Your task to perform on an android device: Open maps Image 0: 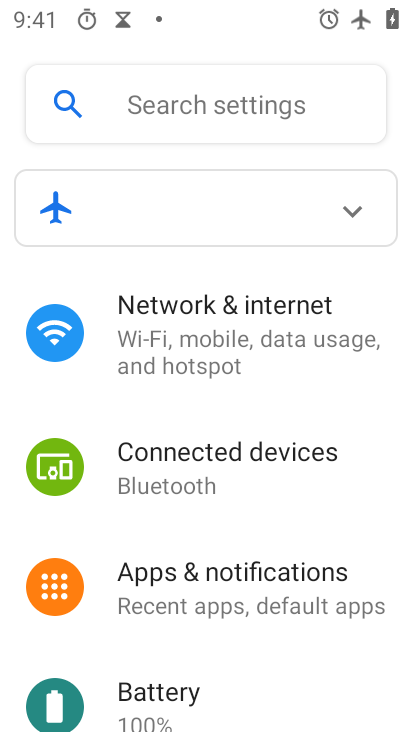
Step 0: press home button
Your task to perform on an android device: Open maps Image 1: 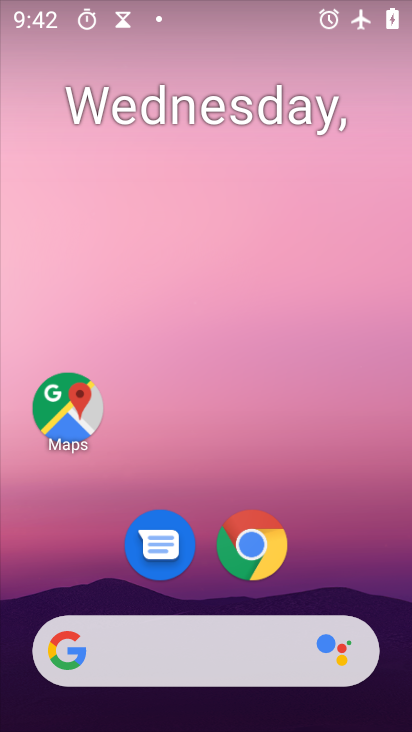
Step 1: click (70, 415)
Your task to perform on an android device: Open maps Image 2: 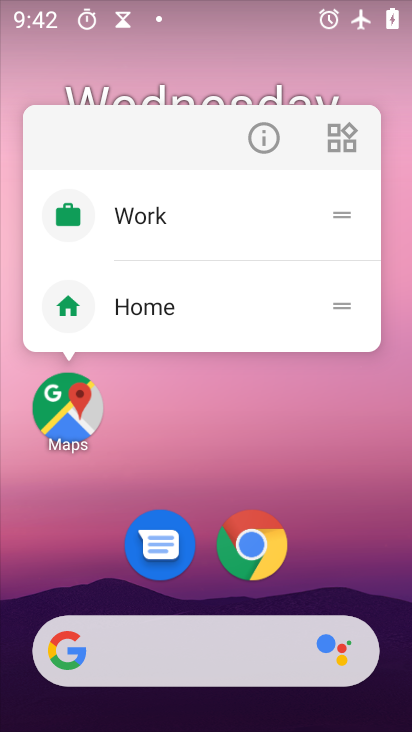
Step 2: click (74, 421)
Your task to perform on an android device: Open maps Image 3: 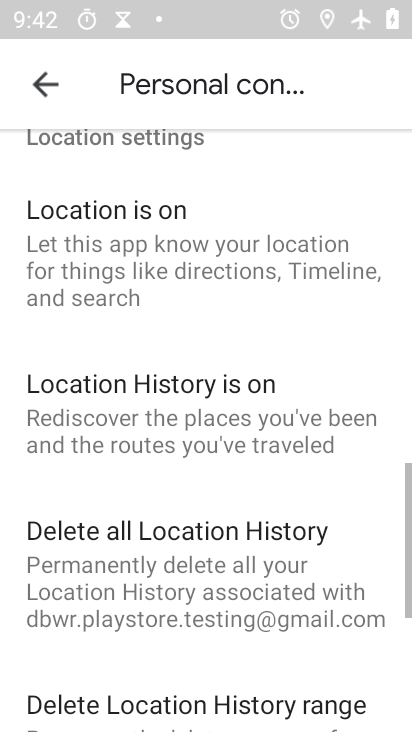
Step 3: click (26, 89)
Your task to perform on an android device: Open maps Image 4: 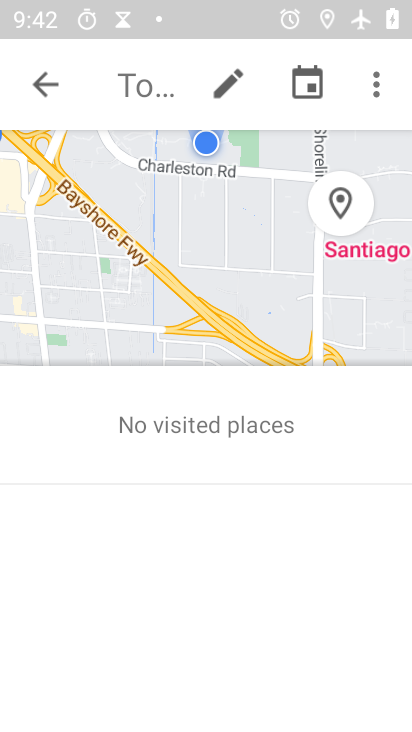
Step 4: click (28, 88)
Your task to perform on an android device: Open maps Image 5: 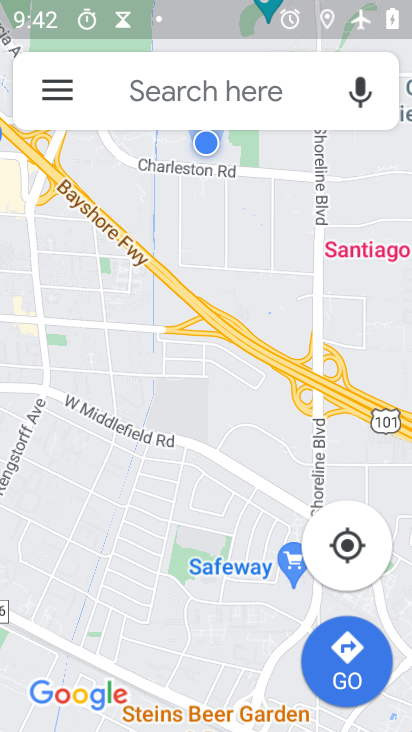
Step 5: task complete